Your task to perform on an android device: change timer sound Image 0: 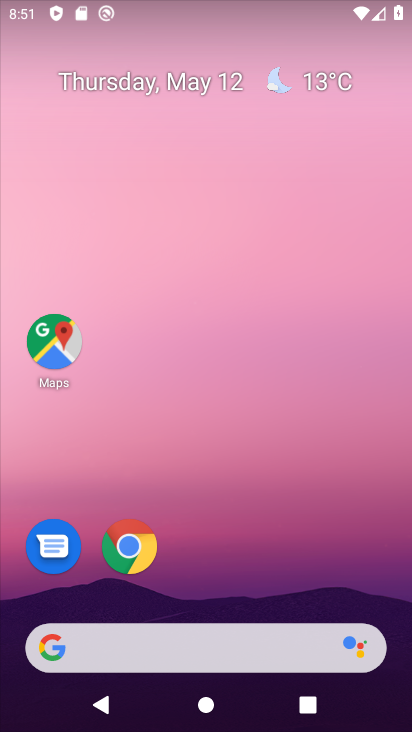
Step 0: drag from (271, 571) to (261, 60)
Your task to perform on an android device: change timer sound Image 1: 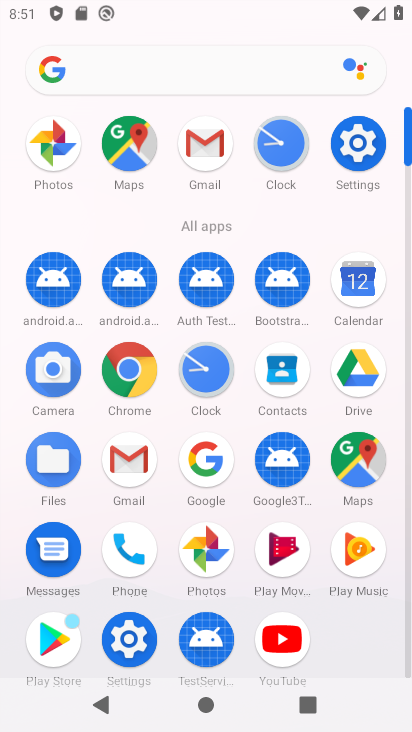
Step 1: click (284, 146)
Your task to perform on an android device: change timer sound Image 2: 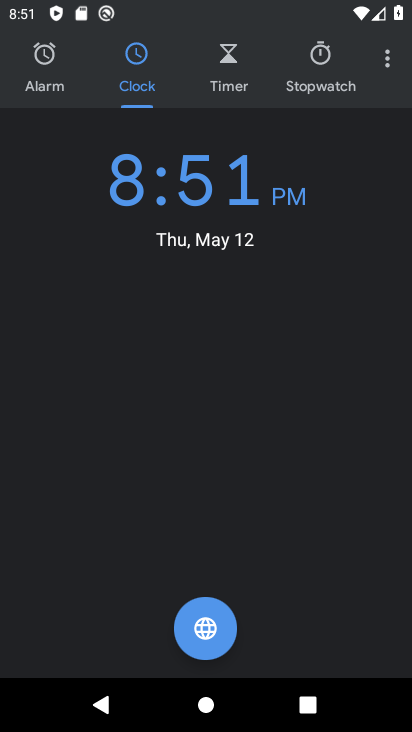
Step 2: click (232, 79)
Your task to perform on an android device: change timer sound Image 3: 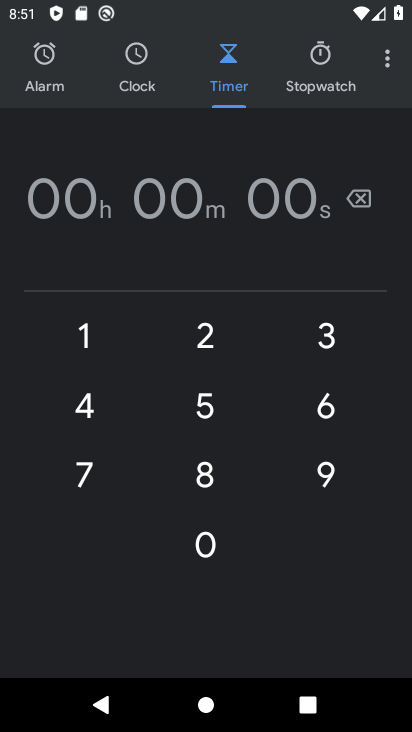
Step 3: click (383, 52)
Your task to perform on an android device: change timer sound Image 4: 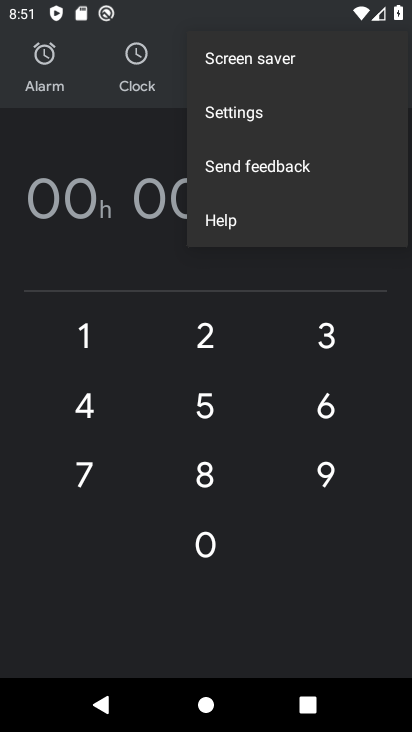
Step 4: click (259, 123)
Your task to perform on an android device: change timer sound Image 5: 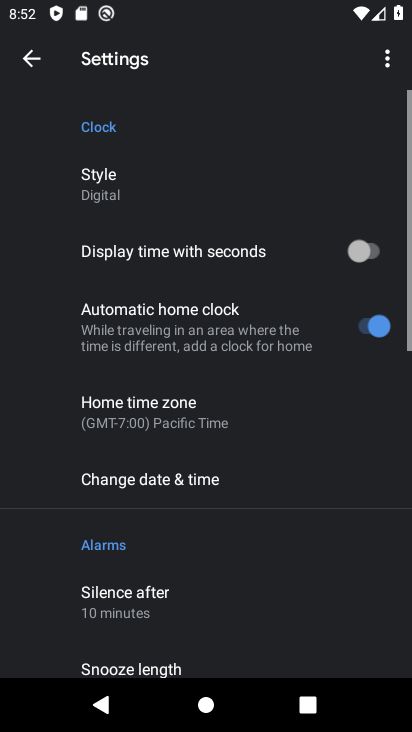
Step 5: drag from (288, 582) to (297, 102)
Your task to perform on an android device: change timer sound Image 6: 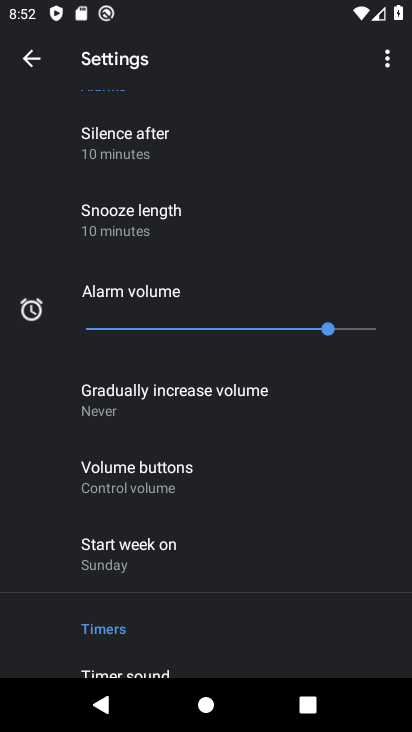
Step 6: drag from (229, 598) to (235, 189)
Your task to perform on an android device: change timer sound Image 7: 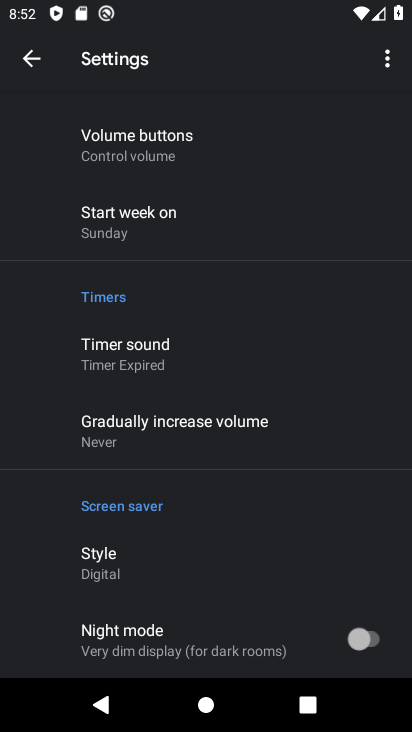
Step 7: click (112, 347)
Your task to perform on an android device: change timer sound Image 8: 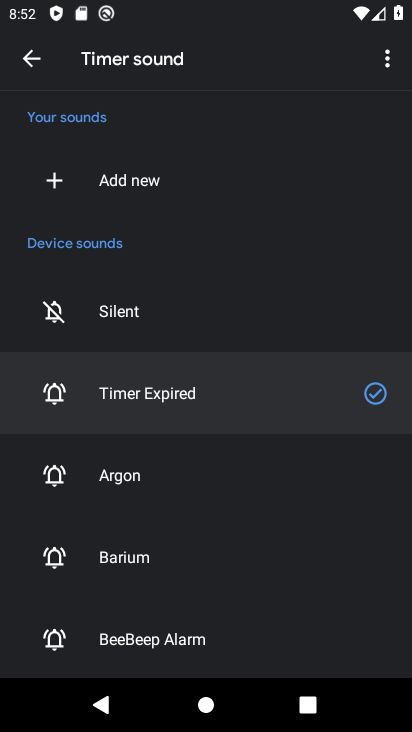
Step 8: click (190, 388)
Your task to perform on an android device: change timer sound Image 9: 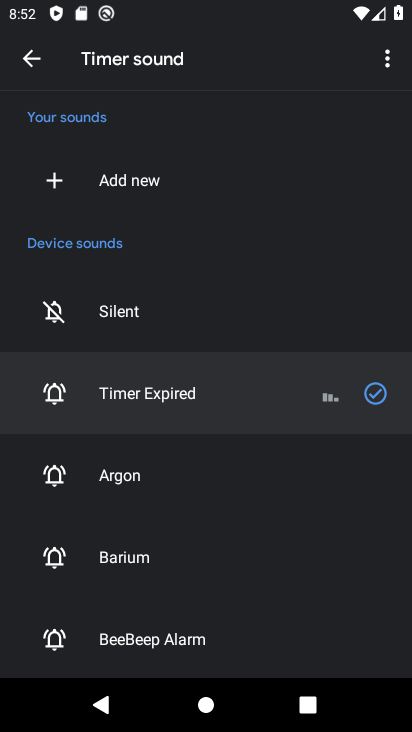
Step 9: click (152, 471)
Your task to perform on an android device: change timer sound Image 10: 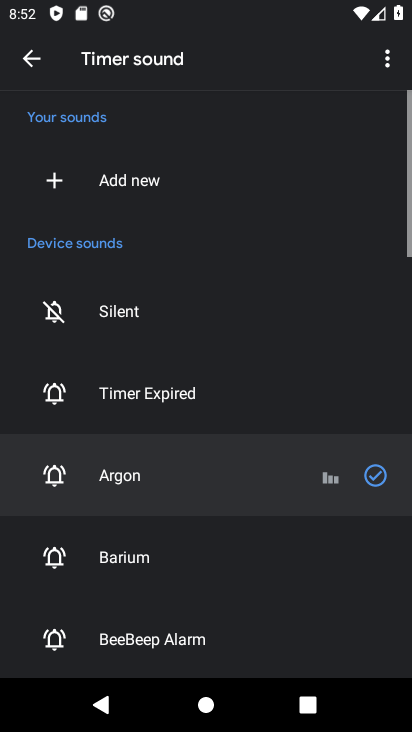
Step 10: click (373, 471)
Your task to perform on an android device: change timer sound Image 11: 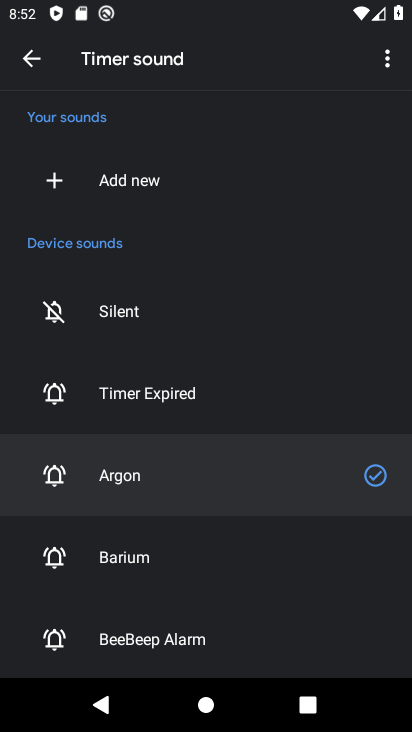
Step 11: task complete